Your task to perform on an android device: Open battery settings Image 0: 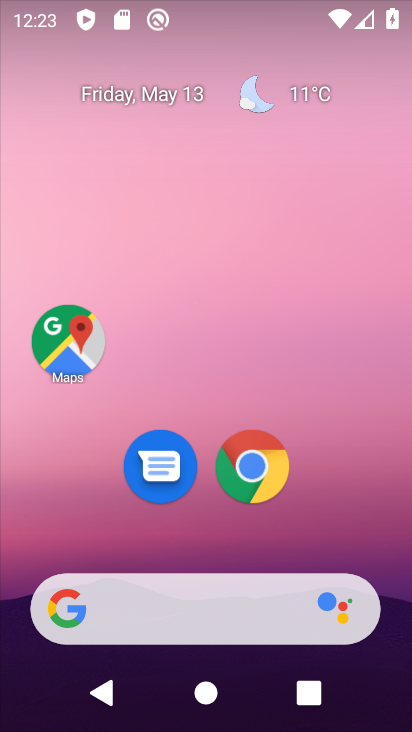
Step 0: drag from (379, 509) to (289, 115)
Your task to perform on an android device: Open battery settings Image 1: 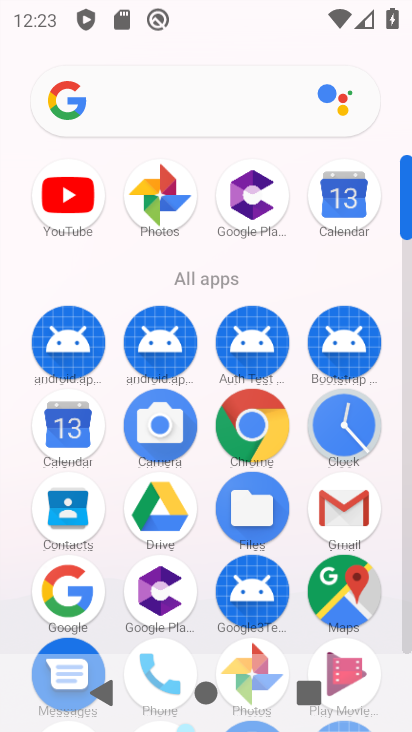
Step 1: drag from (287, 271) to (207, 41)
Your task to perform on an android device: Open battery settings Image 2: 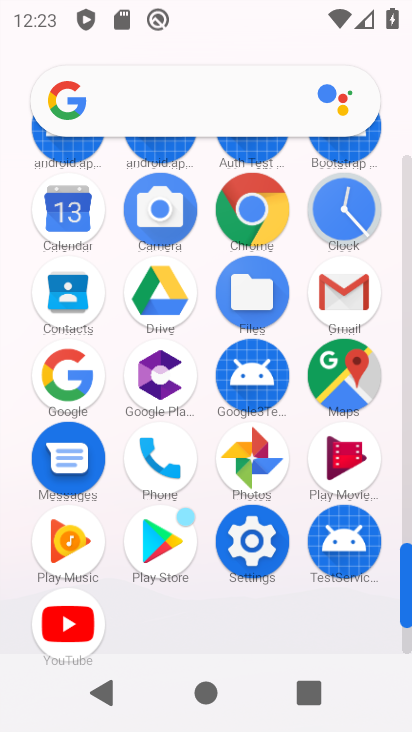
Step 2: click (264, 538)
Your task to perform on an android device: Open battery settings Image 3: 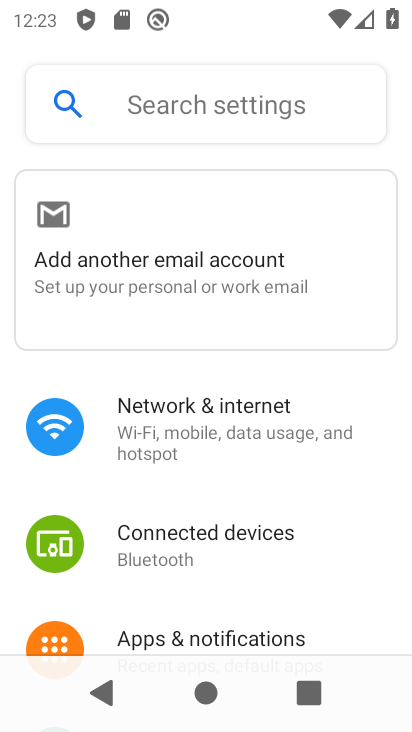
Step 3: drag from (195, 573) to (176, 249)
Your task to perform on an android device: Open battery settings Image 4: 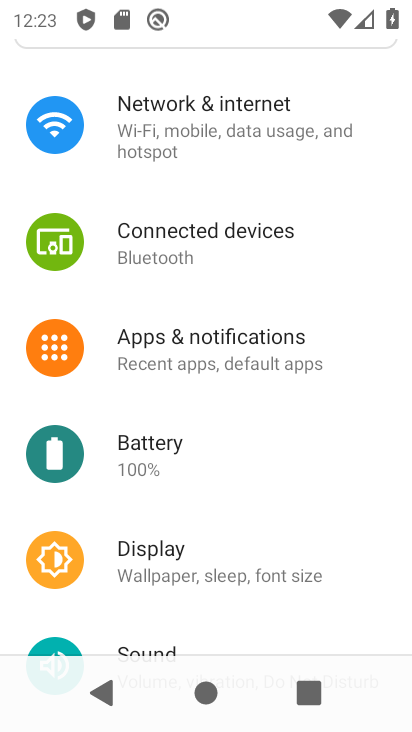
Step 4: click (181, 462)
Your task to perform on an android device: Open battery settings Image 5: 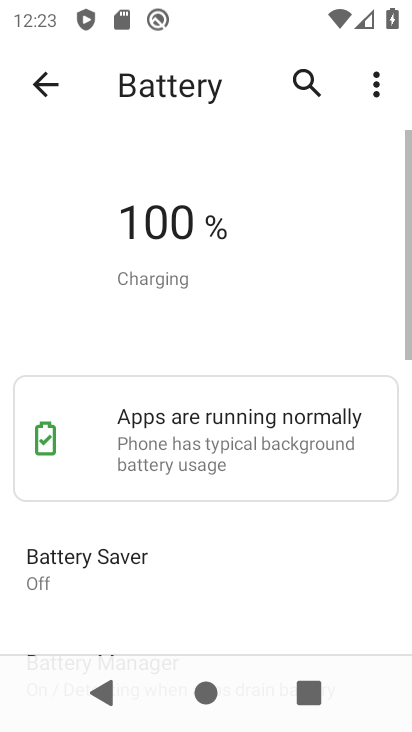
Step 5: task complete